Your task to perform on an android device: turn off improve location accuracy Image 0: 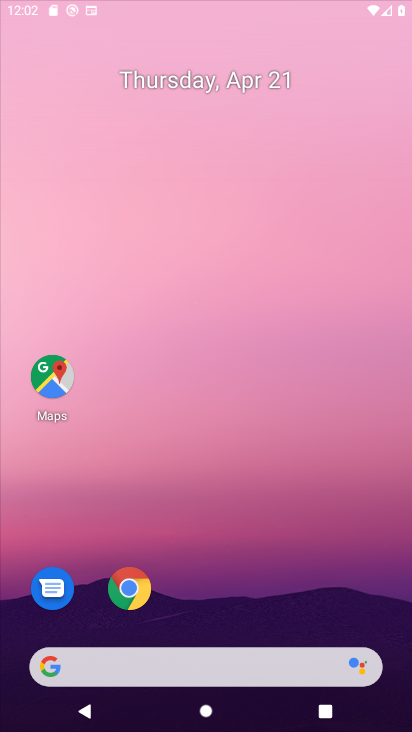
Step 0: click (228, 10)
Your task to perform on an android device: turn off improve location accuracy Image 1: 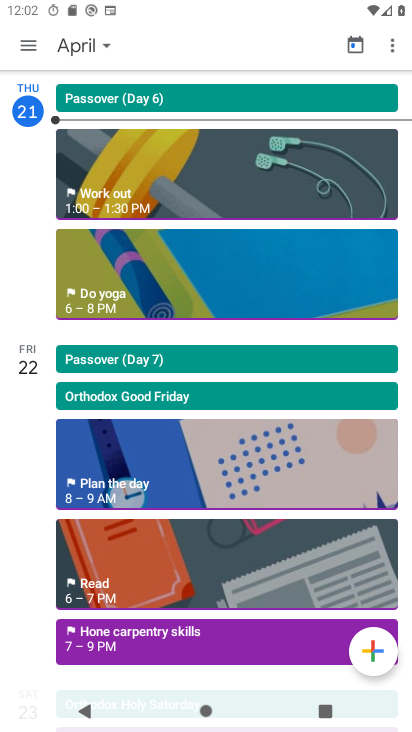
Step 1: press home button
Your task to perform on an android device: turn off improve location accuracy Image 2: 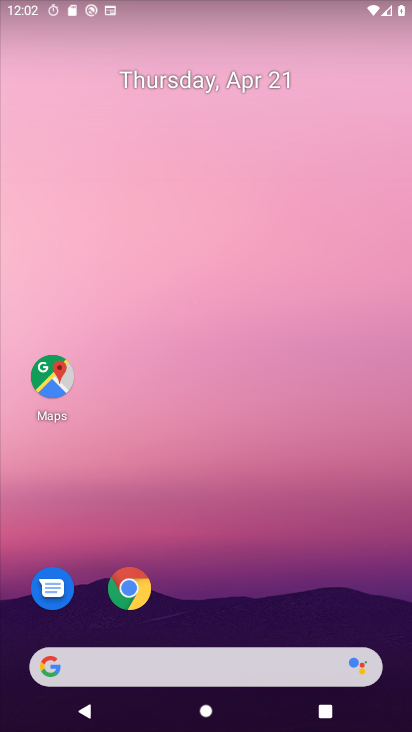
Step 2: drag from (217, 602) to (243, 70)
Your task to perform on an android device: turn off improve location accuracy Image 3: 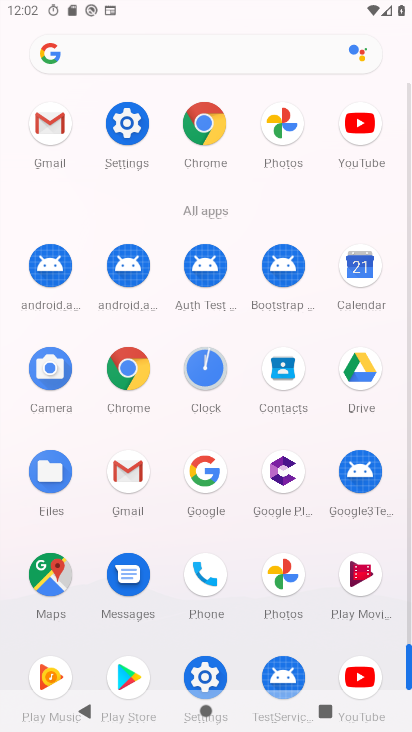
Step 3: click (123, 116)
Your task to perform on an android device: turn off improve location accuracy Image 4: 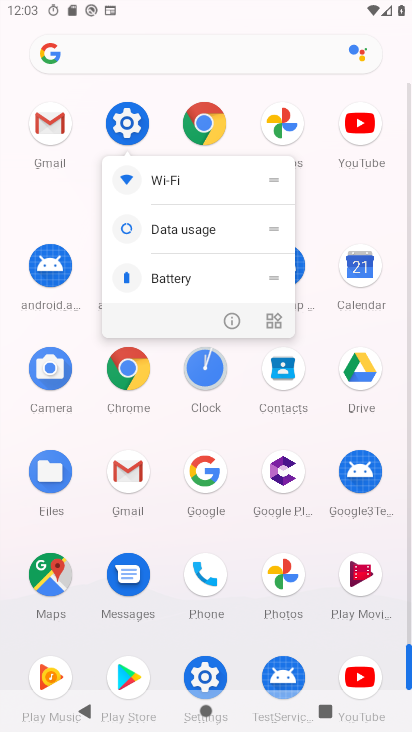
Step 4: click (124, 117)
Your task to perform on an android device: turn off improve location accuracy Image 5: 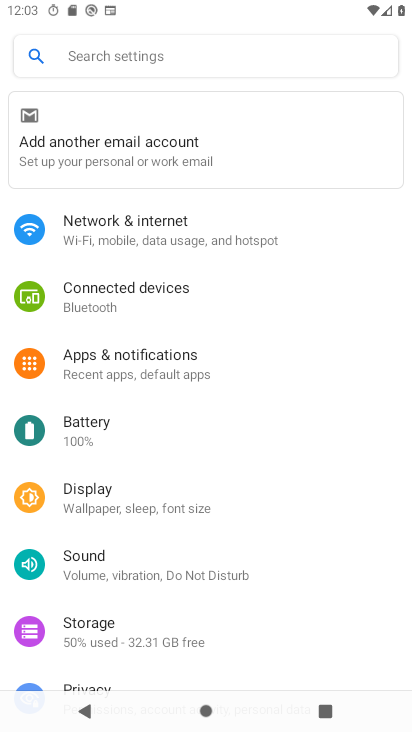
Step 5: drag from (248, 625) to (276, 138)
Your task to perform on an android device: turn off improve location accuracy Image 6: 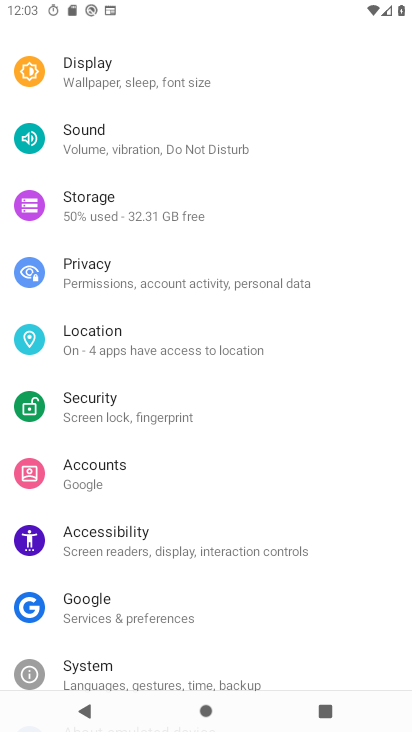
Step 6: click (136, 327)
Your task to perform on an android device: turn off improve location accuracy Image 7: 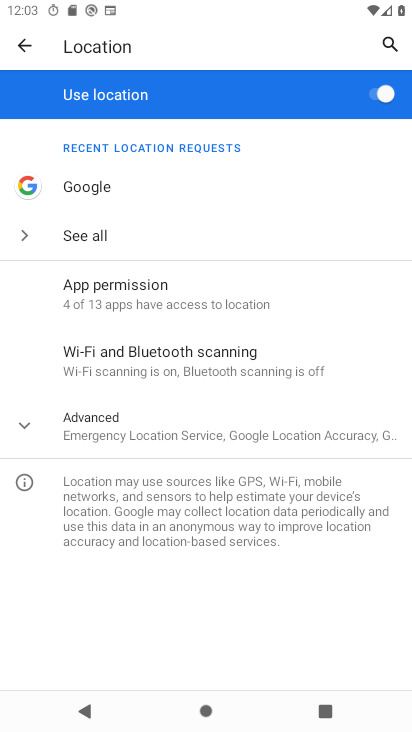
Step 7: click (28, 419)
Your task to perform on an android device: turn off improve location accuracy Image 8: 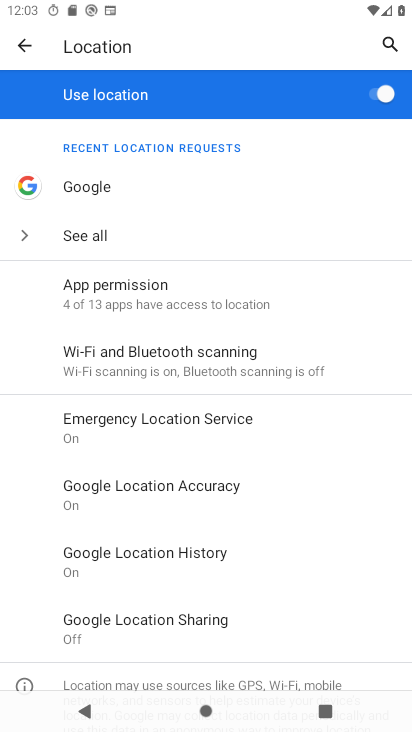
Step 8: click (107, 493)
Your task to perform on an android device: turn off improve location accuracy Image 9: 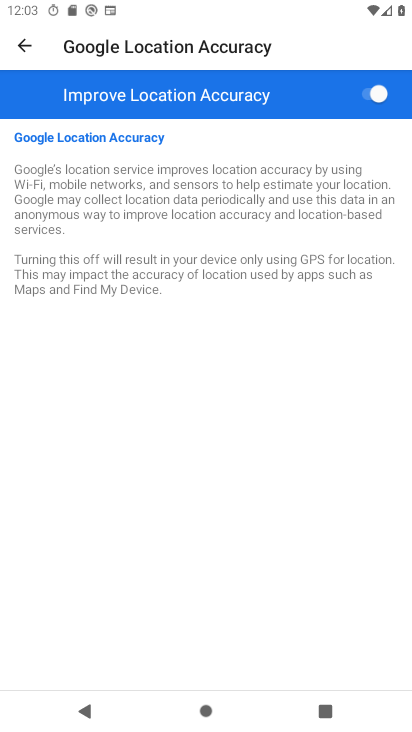
Step 9: click (370, 95)
Your task to perform on an android device: turn off improve location accuracy Image 10: 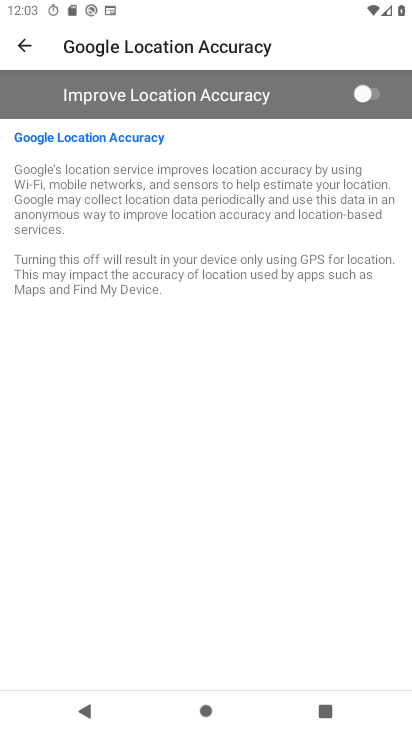
Step 10: task complete